Your task to perform on an android device: Go to network settings Image 0: 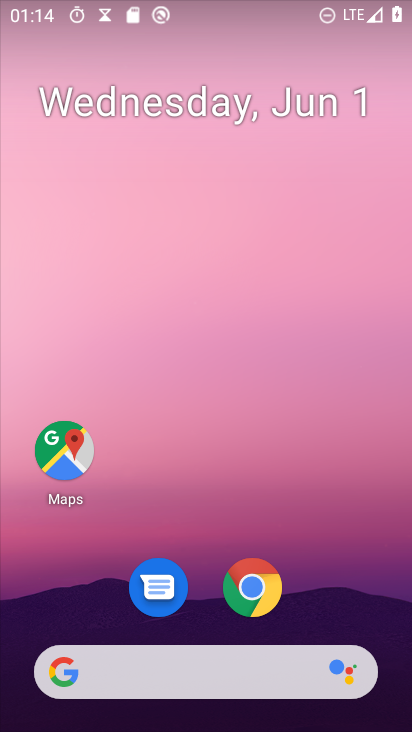
Step 0: drag from (300, 548) to (314, 0)
Your task to perform on an android device: Go to network settings Image 1: 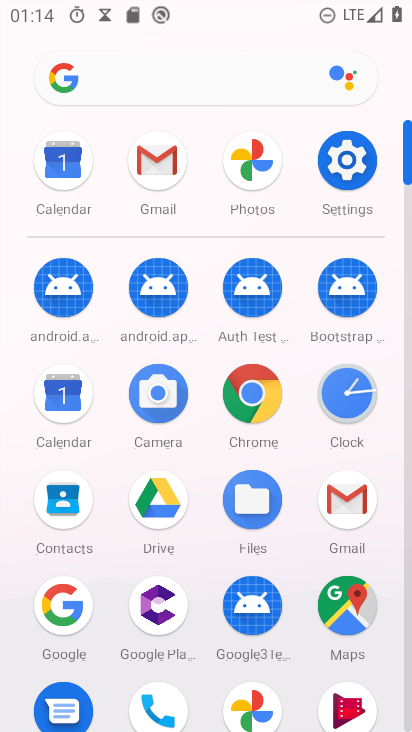
Step 1: click (342, 160)
Your task to perform on an android device: Go to network settings Image 2: 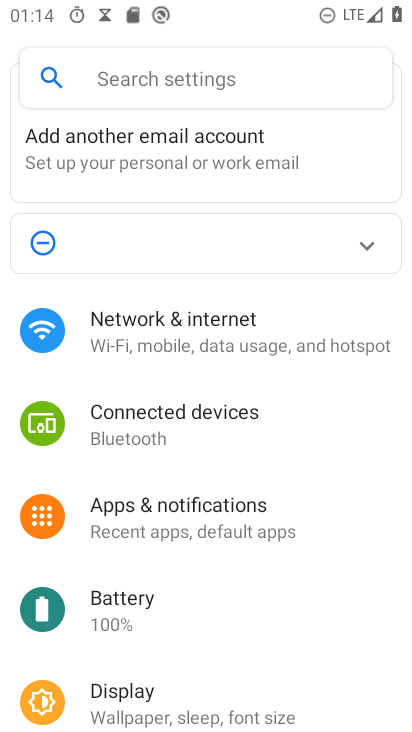
Step 2: click (171, 357)
Your task to perform on an android device: Go to network settings Image 3: 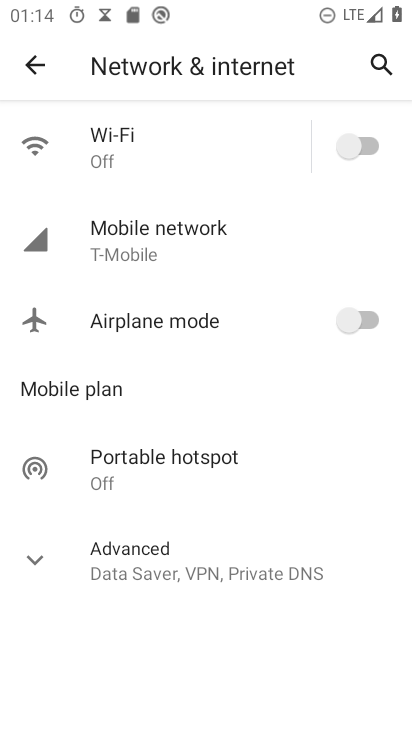
Step 3: click (127, 249)
Your task to perform on an android device: Go to network settings Image 4: 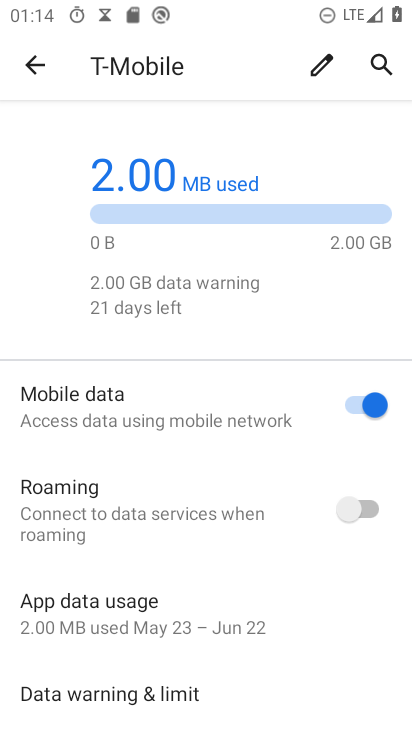
Step 4: task complete